Your task to perform on an android device: make emails show in primary in the gmail app Image 0: 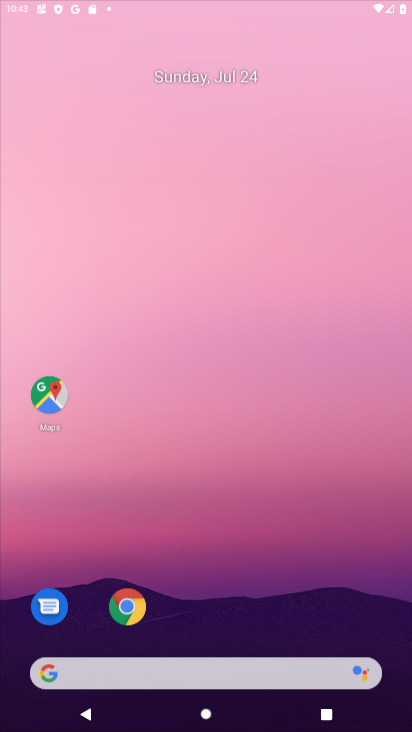
Step 0: press home button
Your task to perform on an android device: make emails show in primary in the gmail app Image 1: 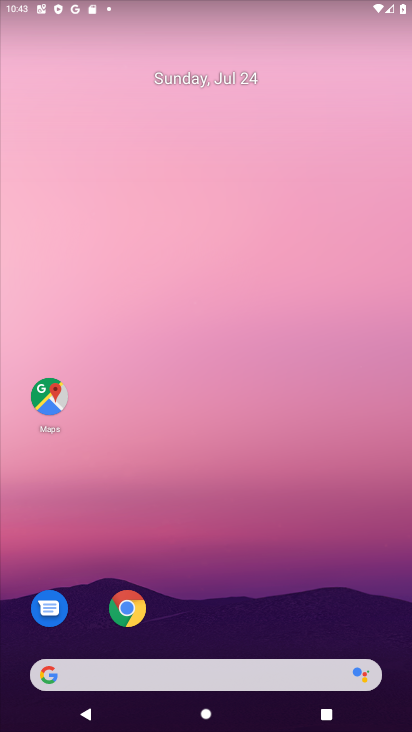
Step 1: drag from (179, 413) to (166, 14)
Your task to perform on an android device: make emails show in primary in the gmail app Image 2: 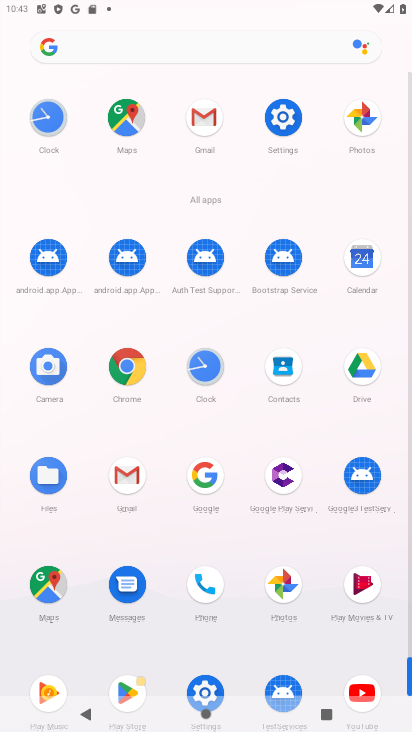
Step 2: click (205, 110)
Your task to perform on an android device: make emails show in primary in the gmail app Image 3: 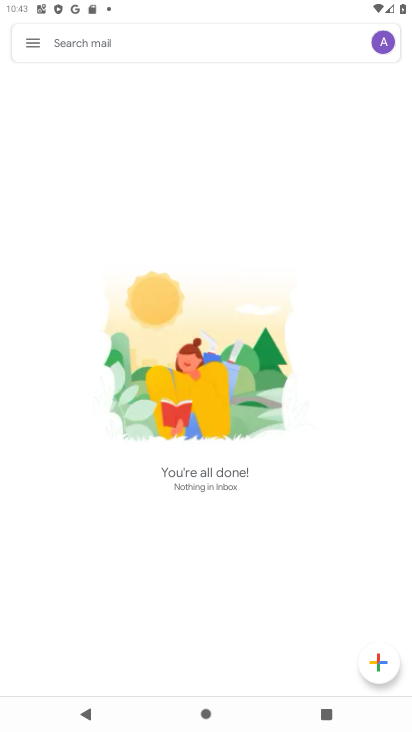
Step 3: click (36, 40)
Your task to perform on an android device: make emails show in primary in the gmail app Image 4: 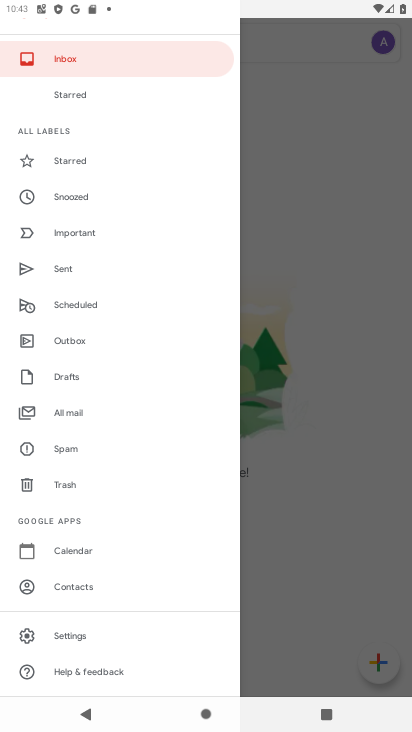
Step 4: click (105, 633)
Your task to perform on an android device: make emails show in primary in the gmail app Image 5: 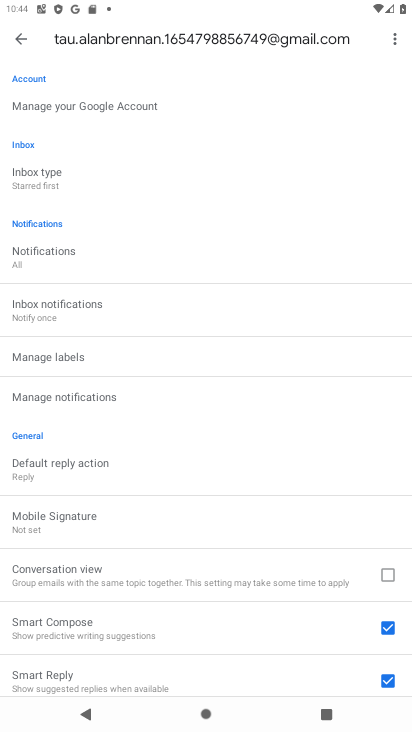
Step 5: click (79, 175)
Your task to perform on an android device: make emails show in primary in the gmail app Image 6: 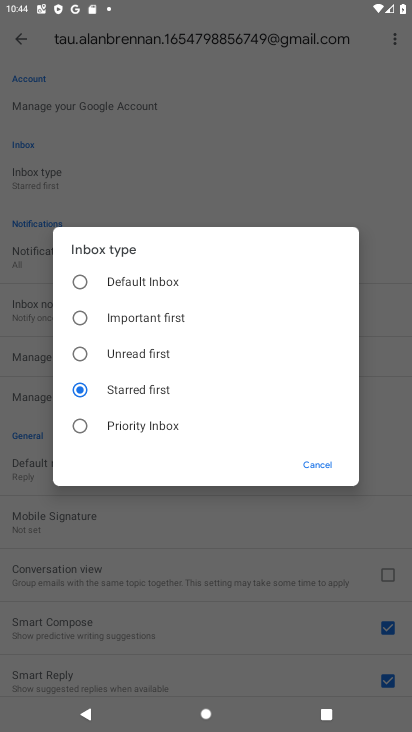
Step 6: click (84, 282)
Your task to perform on an android device: make emails show in primary in the gmail app Image 7: 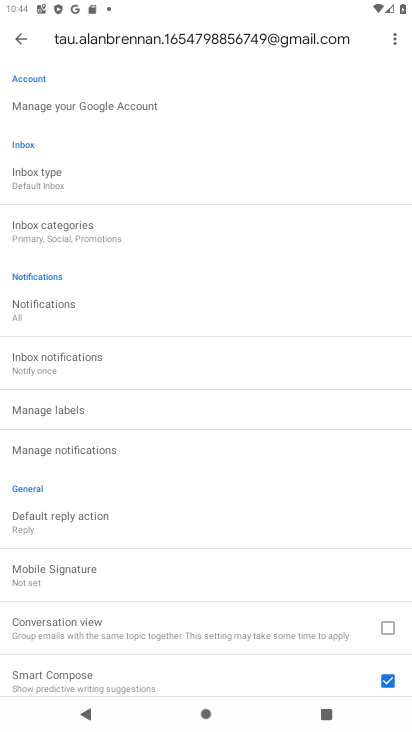
Step 7: task complete